Your task to perform on an android device: turn off priority inbox in the gmail app Image 0: 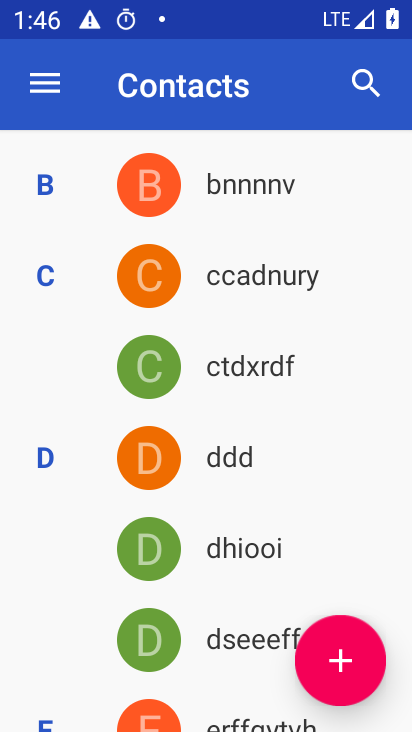
Step 0: press home button
Your task to perform on an android device: turn off priority inbox in the gmail app Image 1: 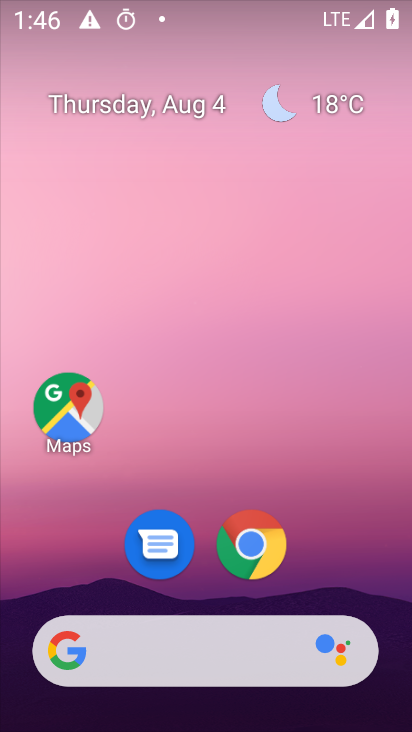
Step 1: drag from (382, 542) to (292, 30)
Your task to perform on an android device: turn off priority inbox in the gmail app Image 2: 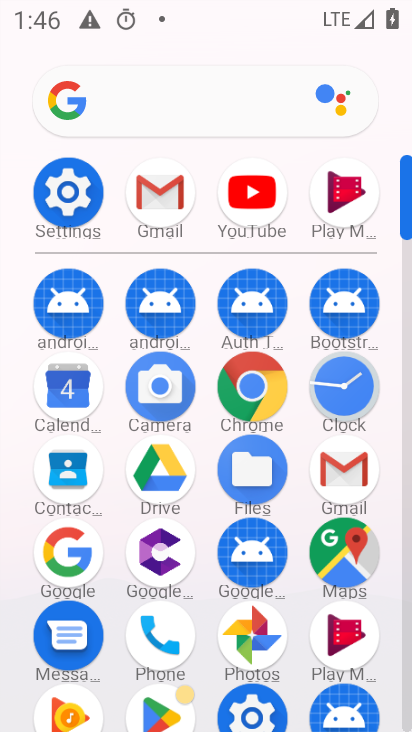
Step 2: click (336, 485)
Your task to perform on an android device: turn off priority inbox in the gmail app Image 3: 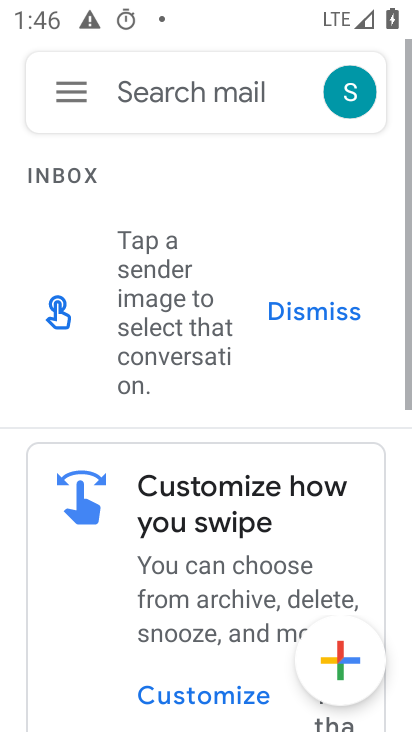
Step 3: click (66, 103)
Your task to perform on an android device: turn off priority inbox in the gmail app Image 4: 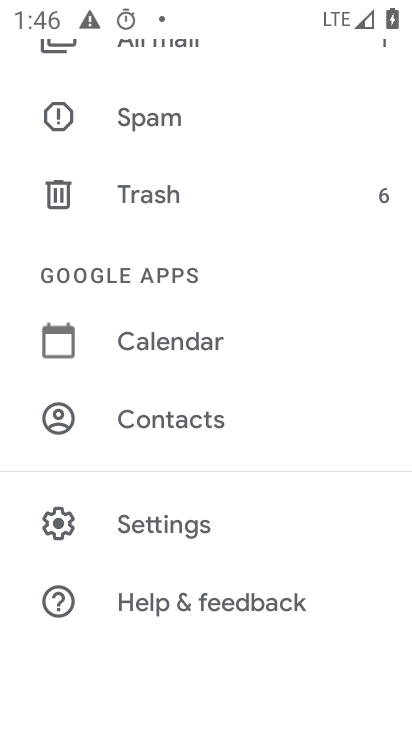
Step 4: click (155, 534)
Your task to perform on an android device: turn off priority inbox in the gmail app Image 5: 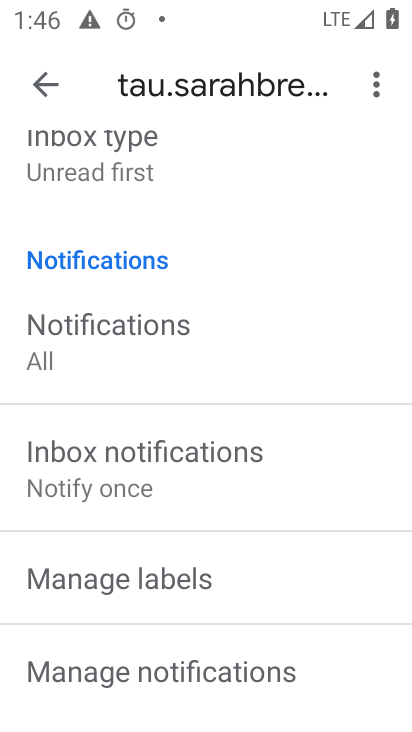
Step 5: click (88, 158)
Your task to perform on an android device: turn off priority inbox in the gmail app Image 6: 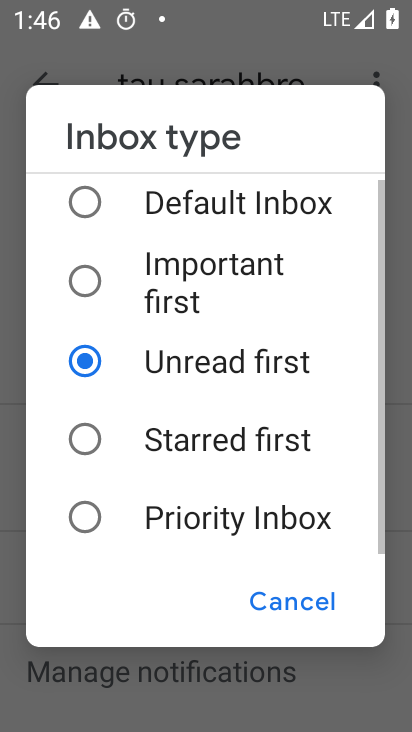
Step 6: click (88, 517)
Your task to perform on an android device: turn off priority inbox in the gmail app Image 7: 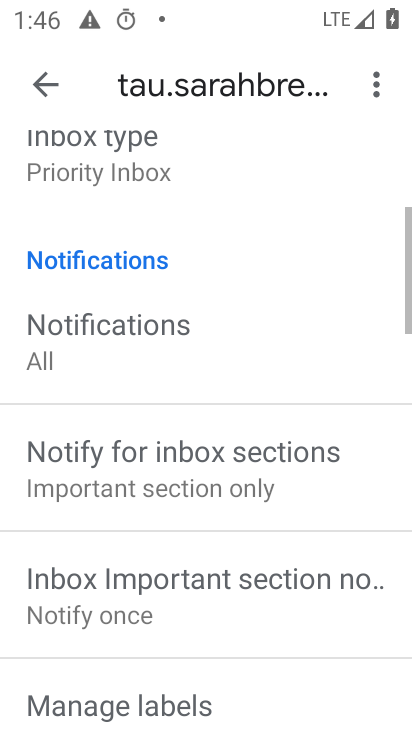
Step 7: task complete